Your task to perform on an android device: turn on location history Image 0: 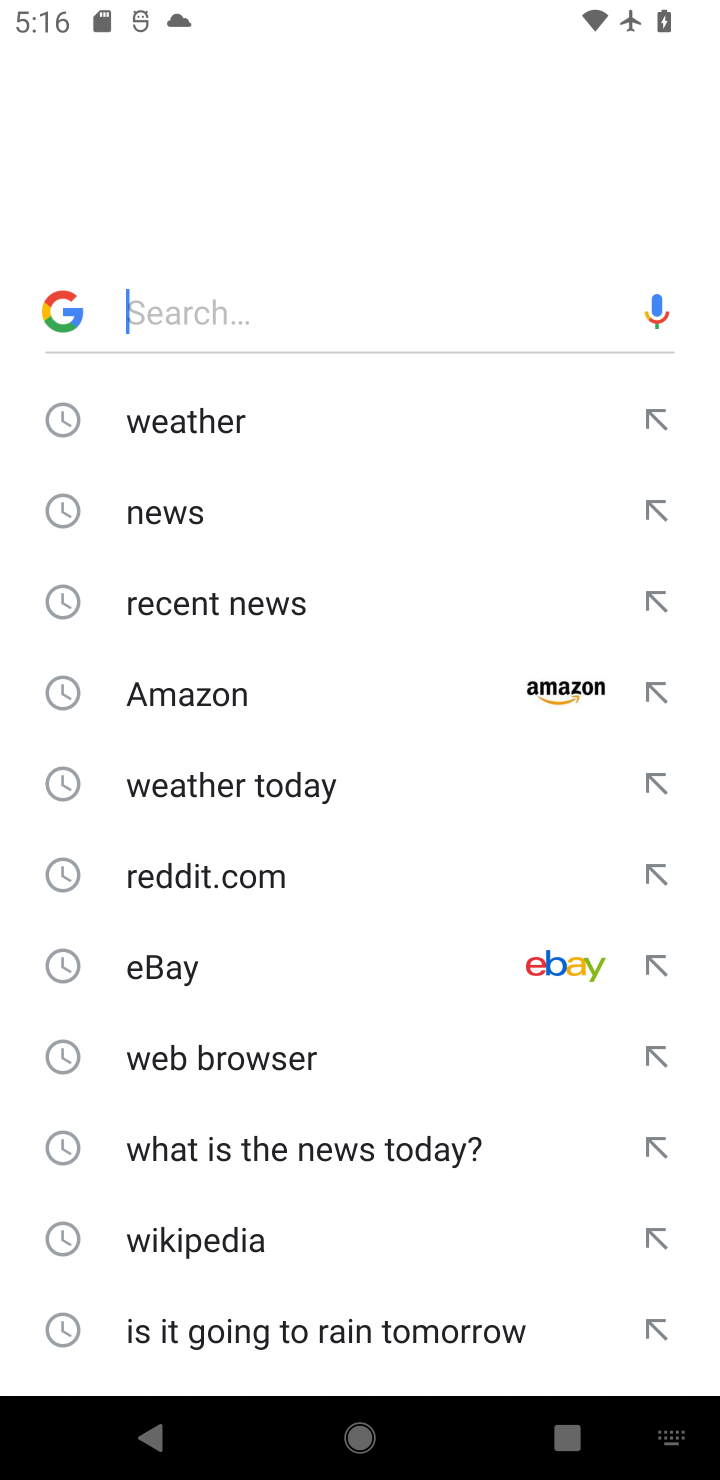
Step 0: press home button
Your task to perform on an android device: turn on location history Image 1: 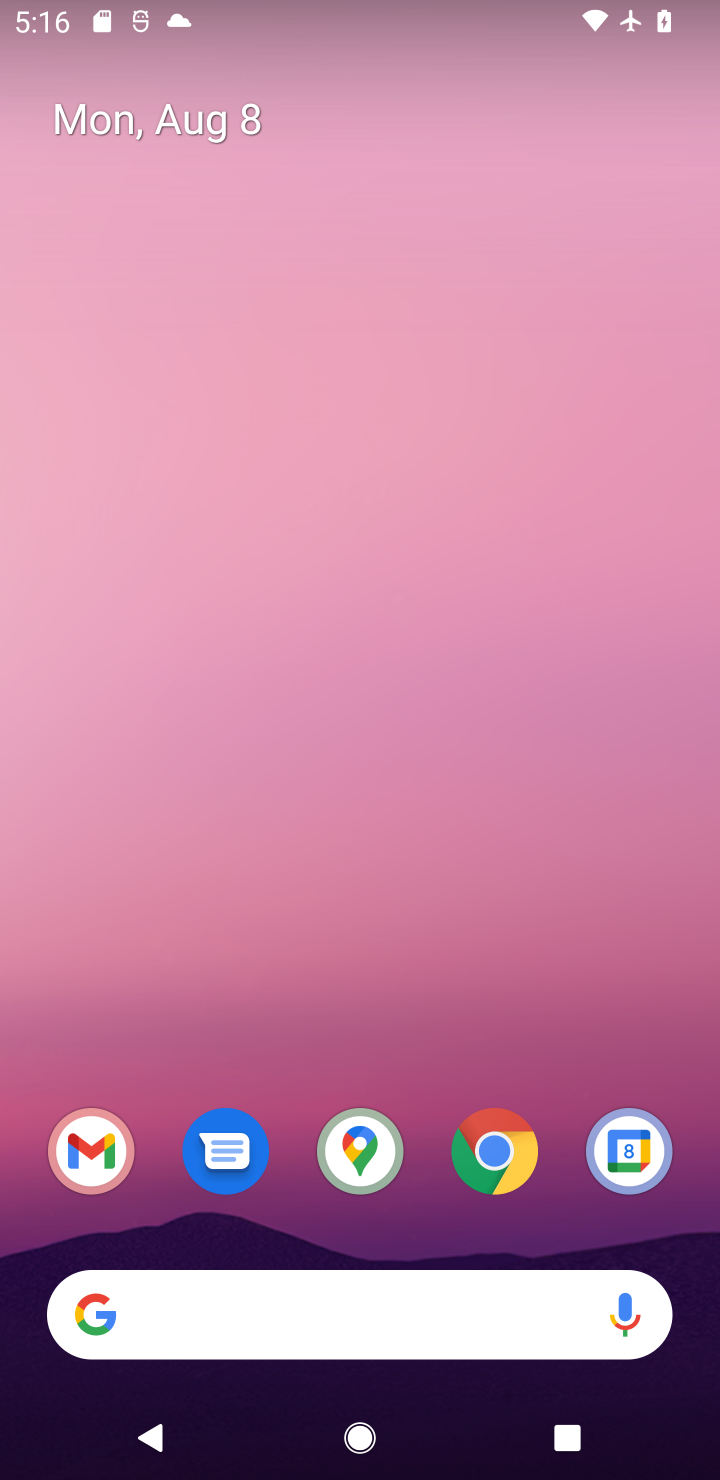
Step 1: drag from (404, 887) to (355, 285)
Your task to perform on an android device: turn on location history Image 2: 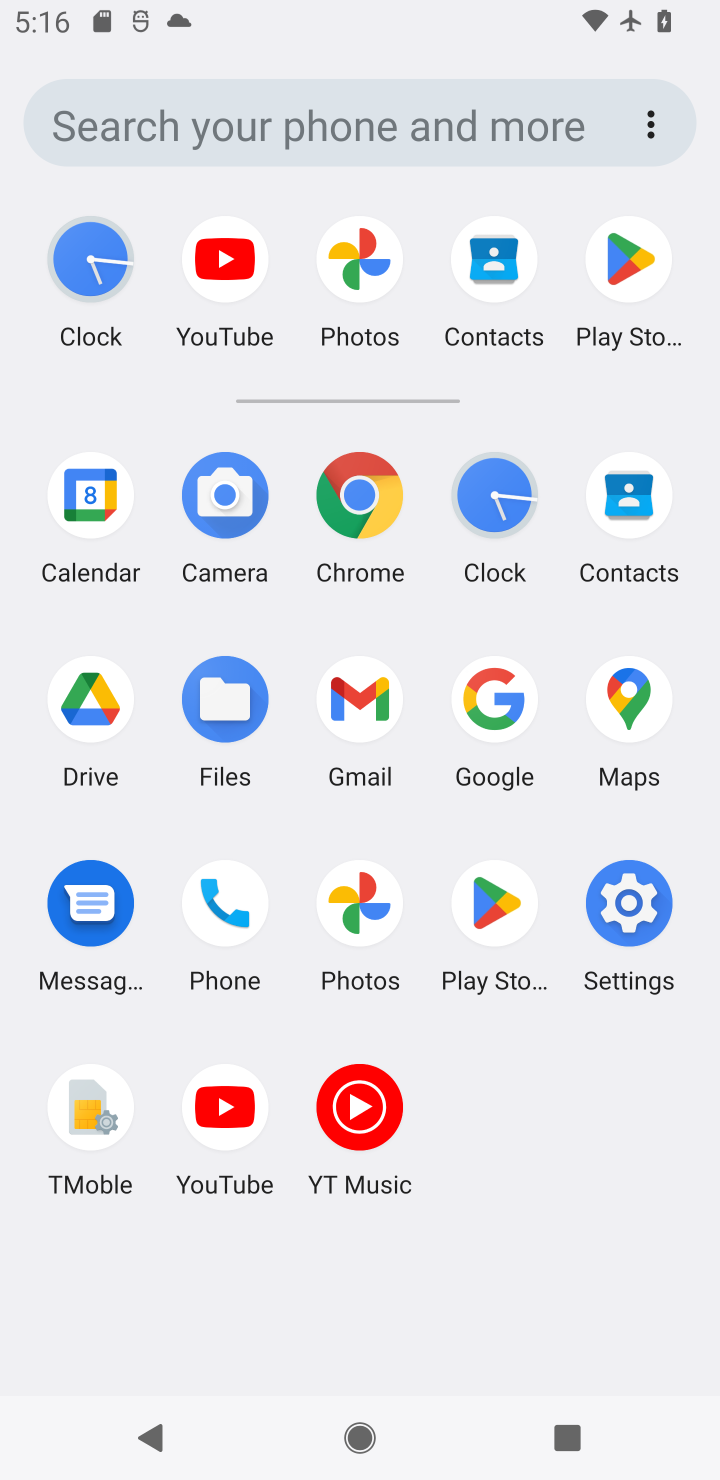
Step 2: click (643, 868)
Your task to perform on an android device: turn on location history Image 3: 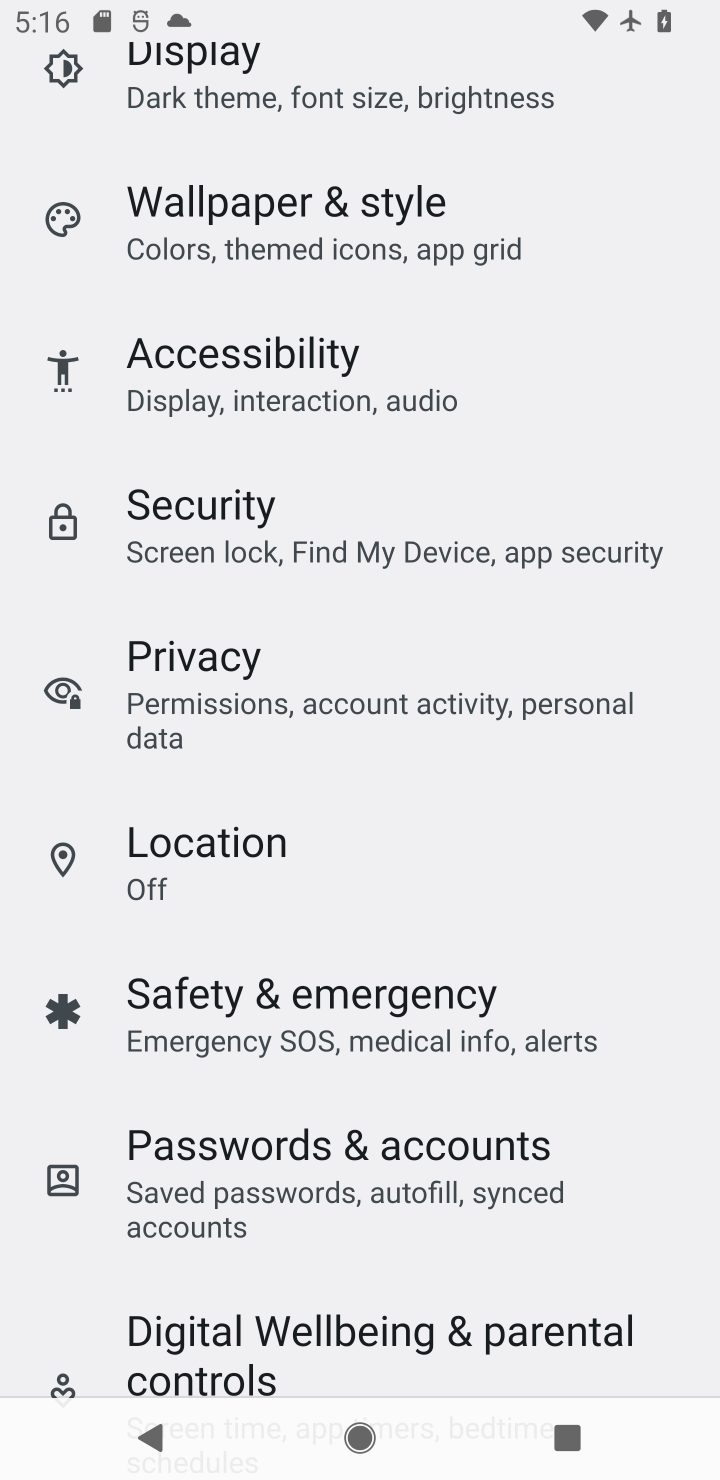
Step 3: click (316, 886)
Your task to perform on an android device: turn on location history Image 4: 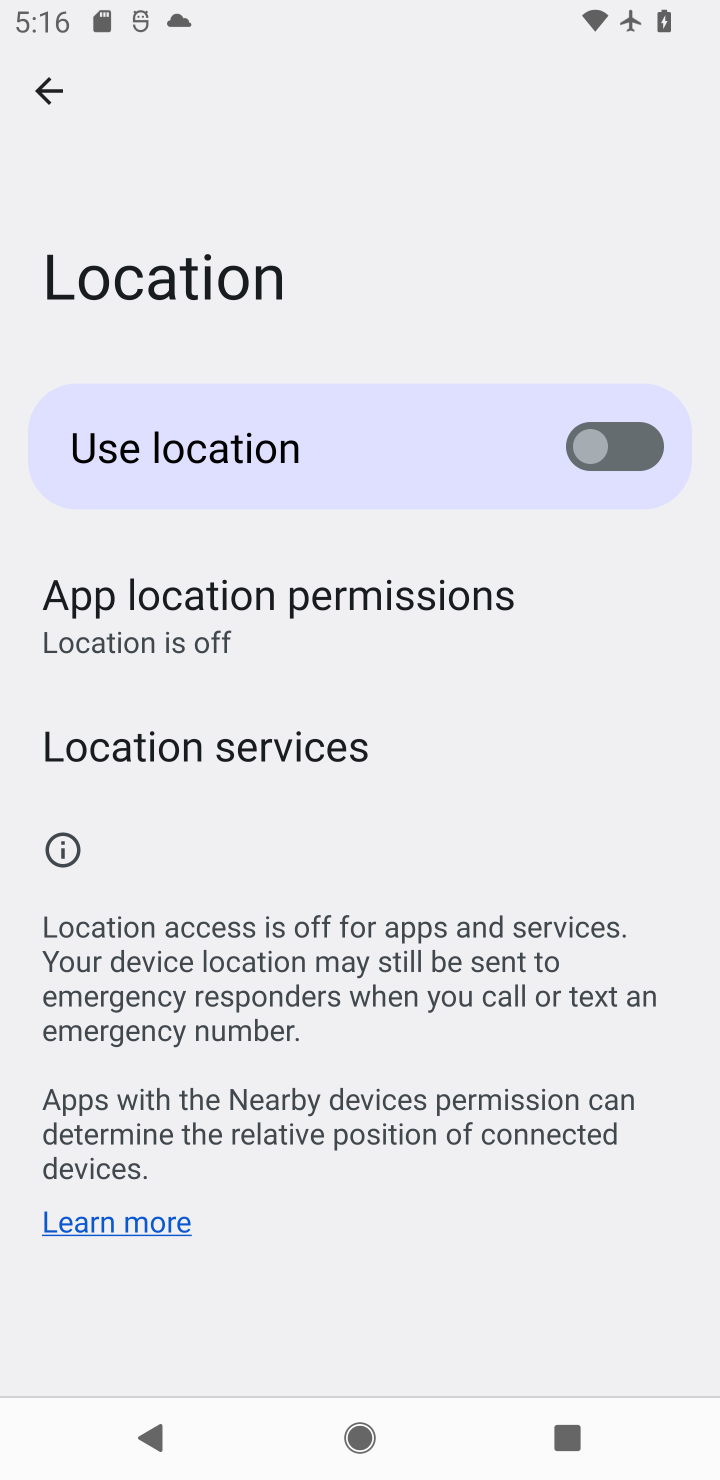
Step 4: click (293, 731)
Your task to perform on an android device: turn on location history Image 5: 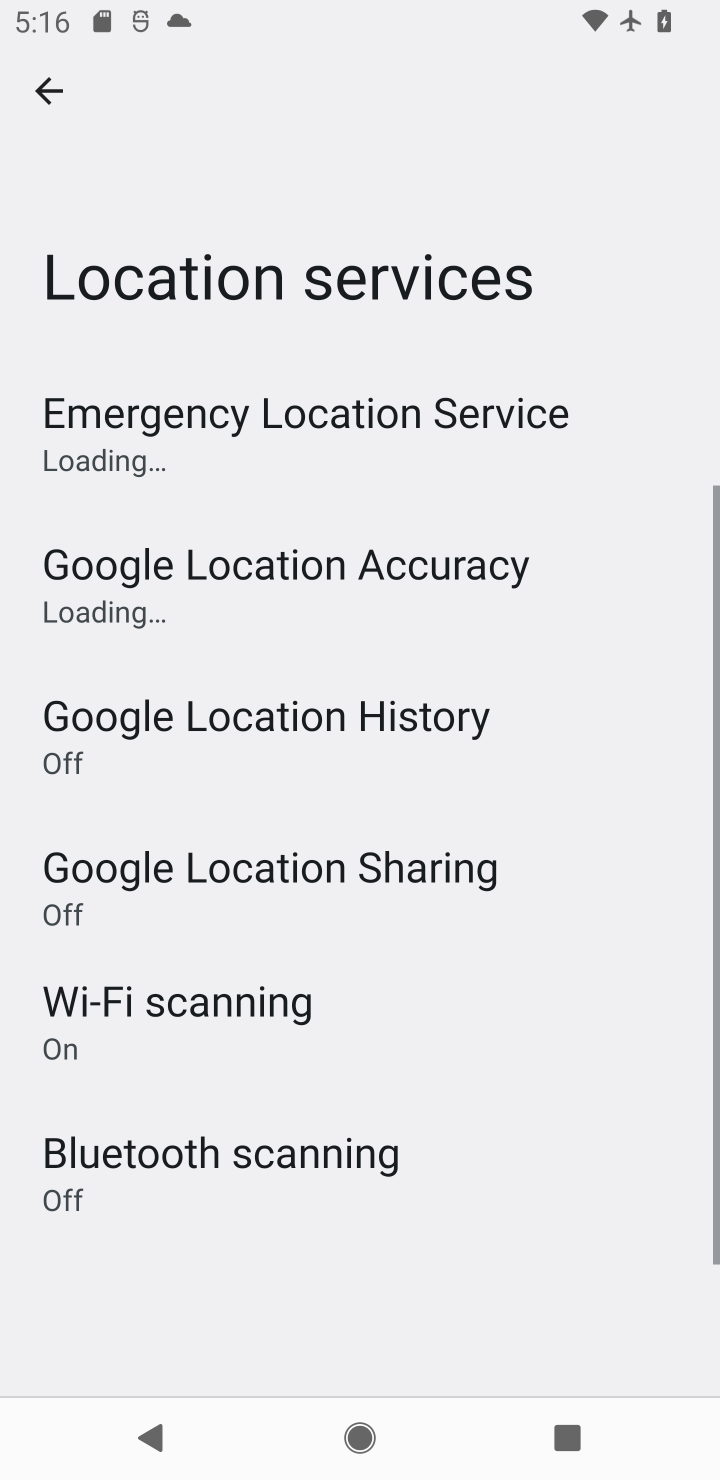
Step 5: click (380, 739)
Your task to perform on an android device: turn on location history Image 6: 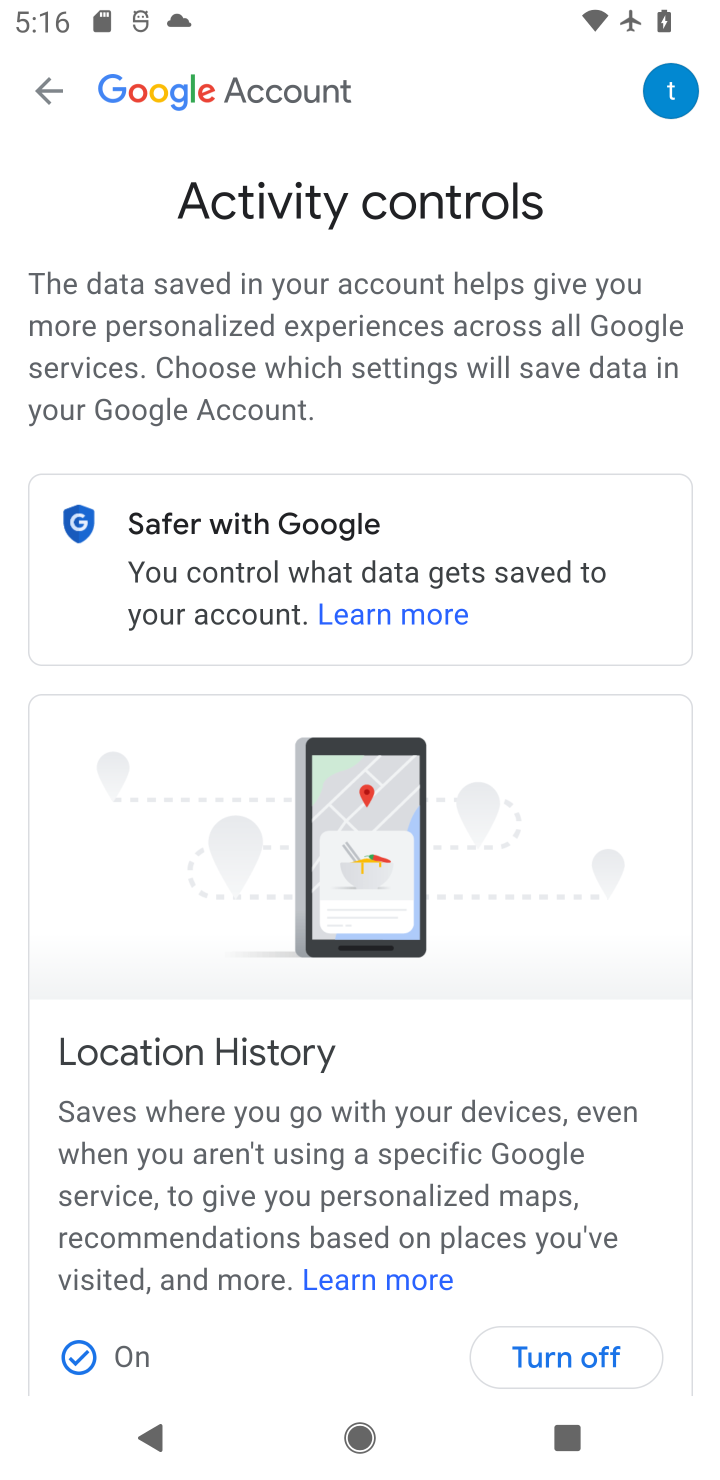
Step 6: task complete